Your task to perform on an android device: change your default location settings in chrome Image 0: 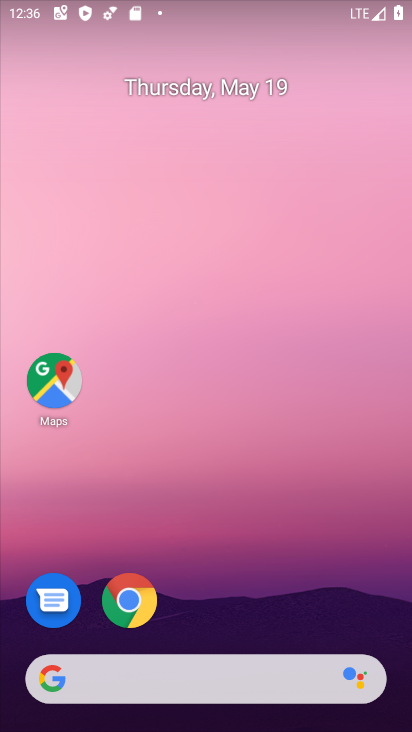
Step 0: click (136, 591)
Your task to perform on an android device: change your default location settings in chrome Image 1: 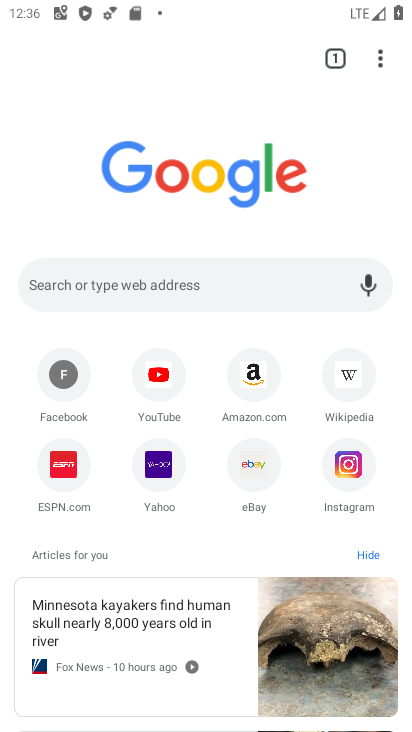
Step 1: click (379, 55)
Your task to perform on an android device: change your default location settings in chrome Image 2: 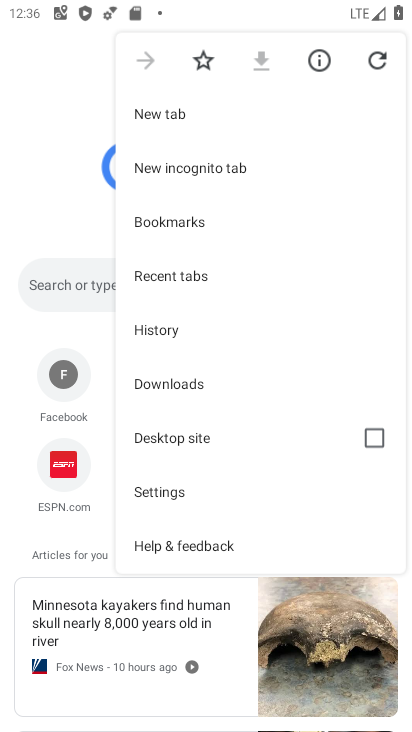
Step 2: click (163, 491)
Your task to perform on an android device: change your default location settings in chrome Image 3: 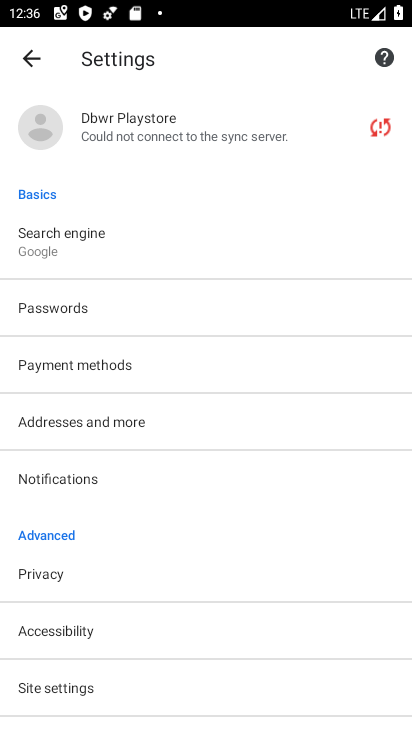
Step 3: drag from (158, 488) to (158, 282)
Your task to perform on an android device: change your default location settings in chrome Image 4: 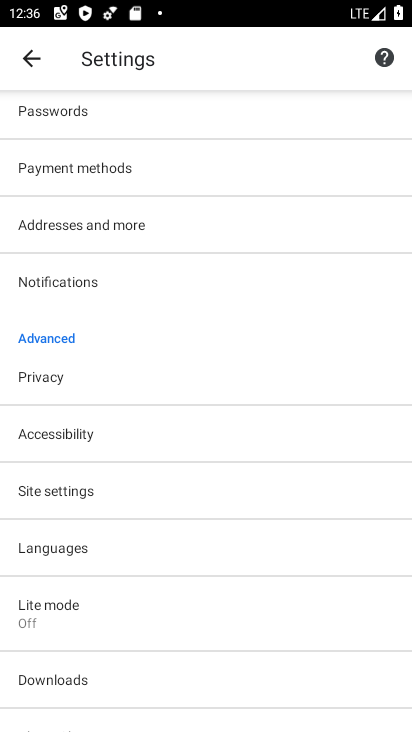
Step 4: drag from (187, 517) to (184, 244)
Your task to perform on an android device: change your default location settings in chrome Image 5: 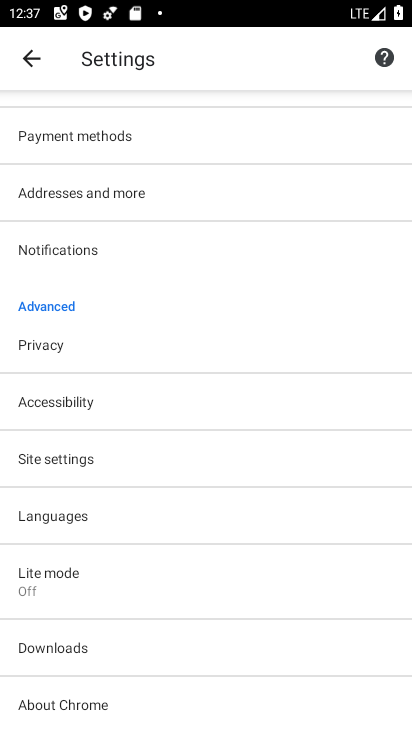
Step 5: click (59, 455)
Your task to perform on an android device: change your default location settings in chrome Image 6: 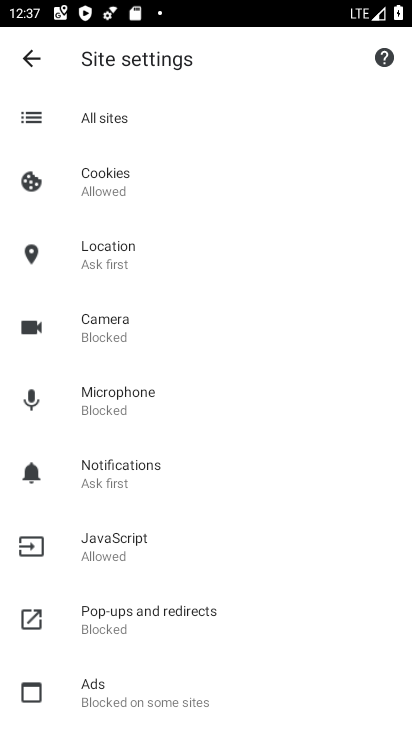
Step 6: click (105, 247)
Your task to perform on an android device: change your default location settings in chrome Image 7: 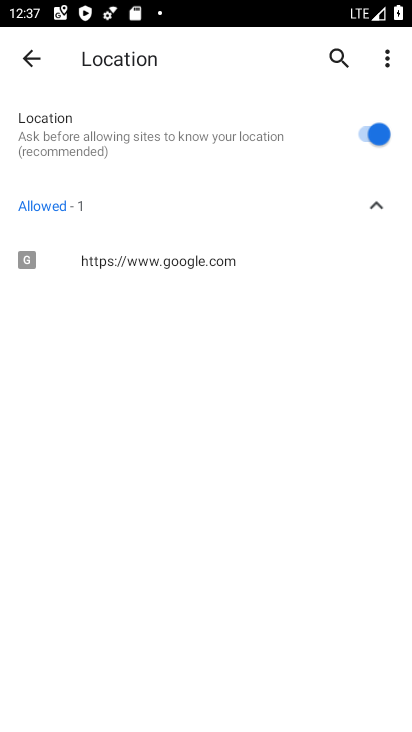
Step 7: click (380, 135)
Your task to perform on an android device: change your default location settings in chrome Image 8: 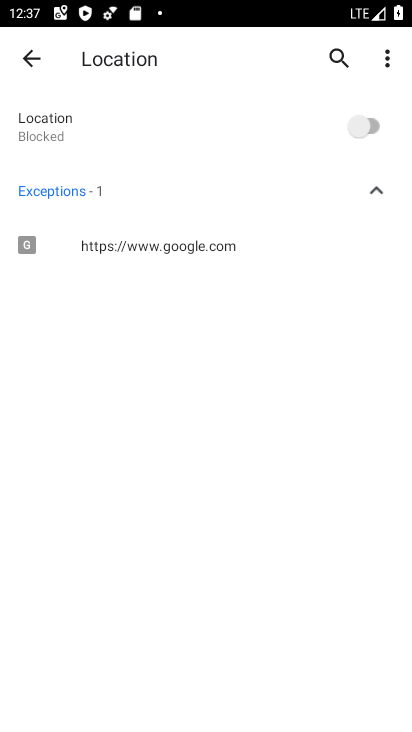
Step 8: task complete